Your task to perform on an android device: turn on showing notifications on the lock screen Image 0: 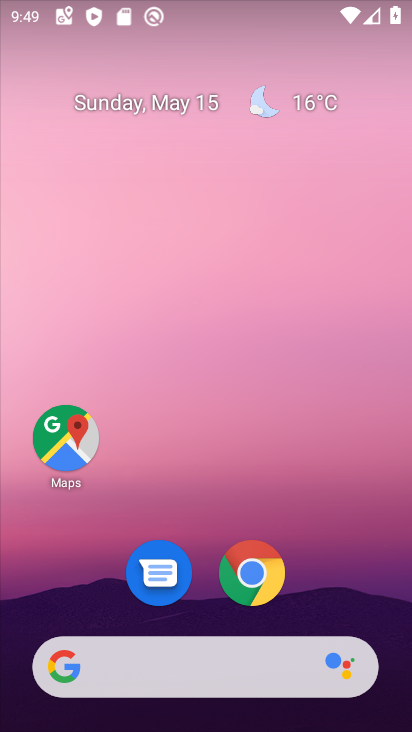
Step 0: drag from (337, 593) to (336, 48)
Your task to perform on an android device: turn on showing notifications on the lock screen Image 1: 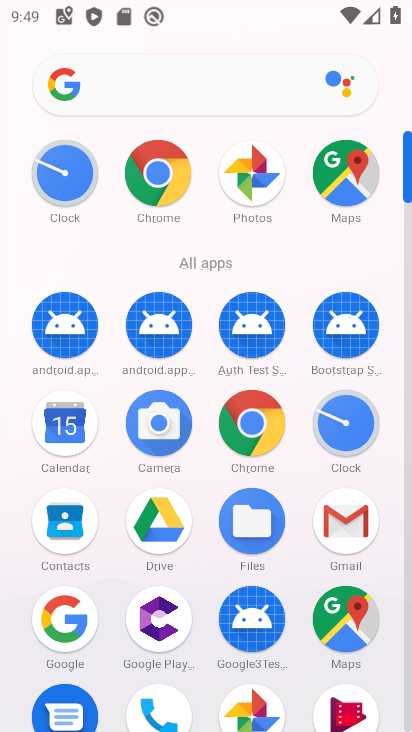
Step 1: click (411, 716)
Your task to perform on an android device: turn on showing notifications on the lock screen Image 2: 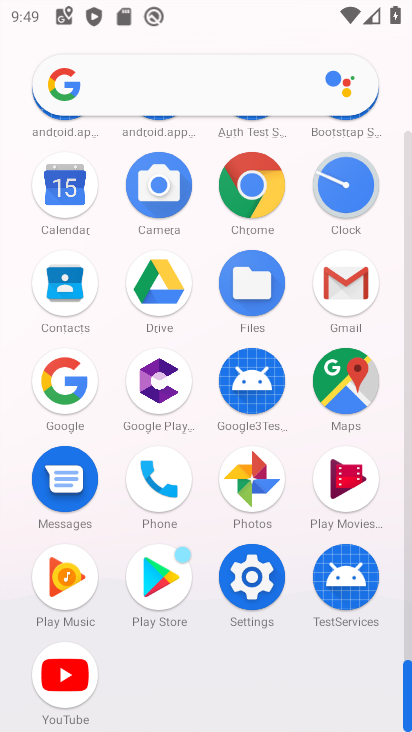
Step 2: click (236, 600)
Your task to perform on an android device: turn on showing notifications on the lock screen Image 3: 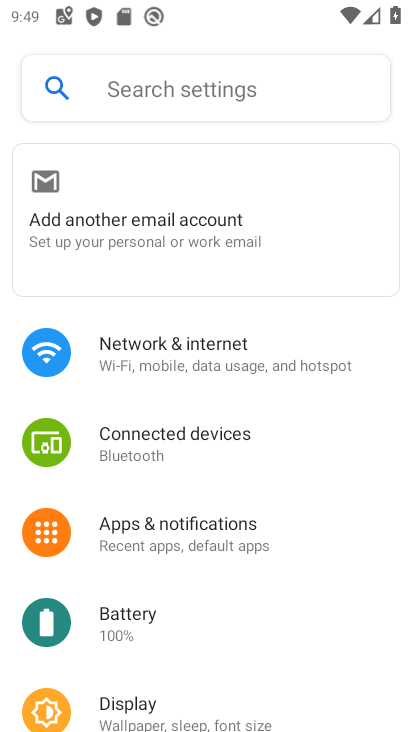
Step 3: drag from (228, 498) to (217, 241)
Your task to perform on an android device: turn on showing notifications on the lock screen Image 4: 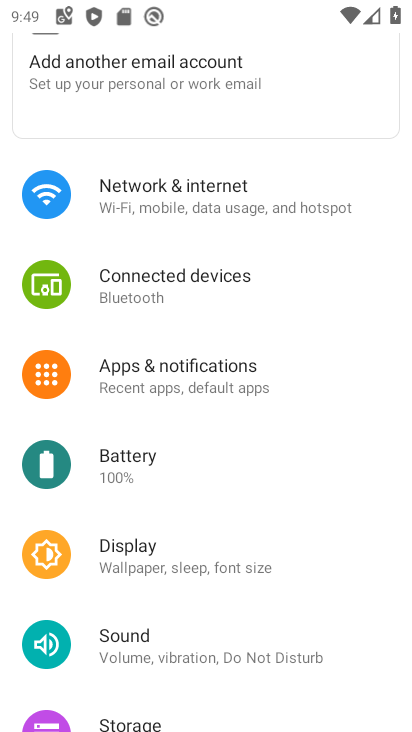
Step 4: click (137, 388)
Your task to perform on an android device: turn on showing notifications on the lock screen Image 5: 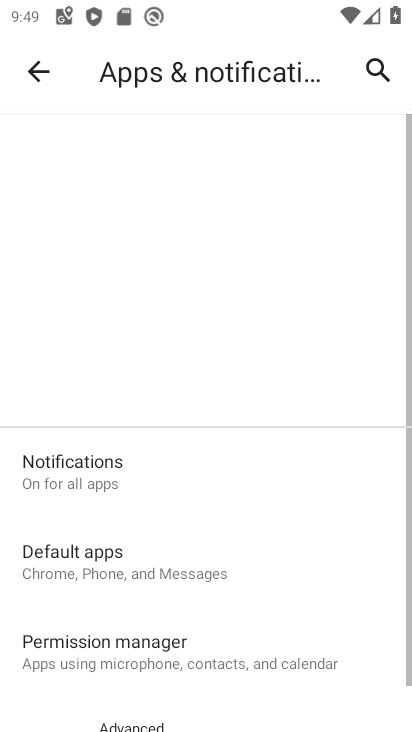
Step 5: click (113, 475)
Your task to perform on an android device: turn on showing notifications on the lock screen Image 6: 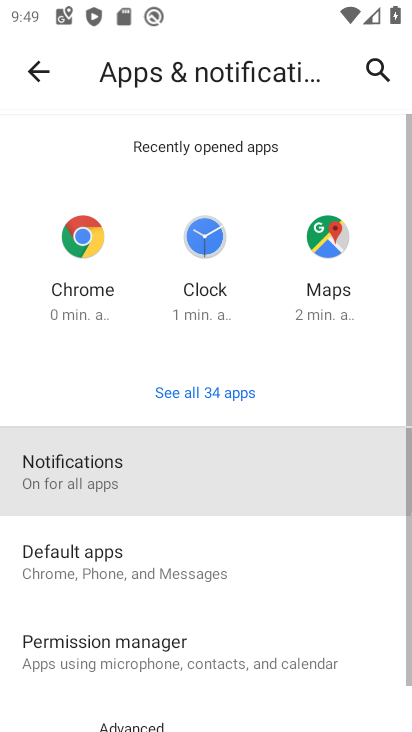
Step 6: drag from (207, 656) to (238, 317)
Your task to perform on an android device: turn on showing notifications on the lock screen Image 7: 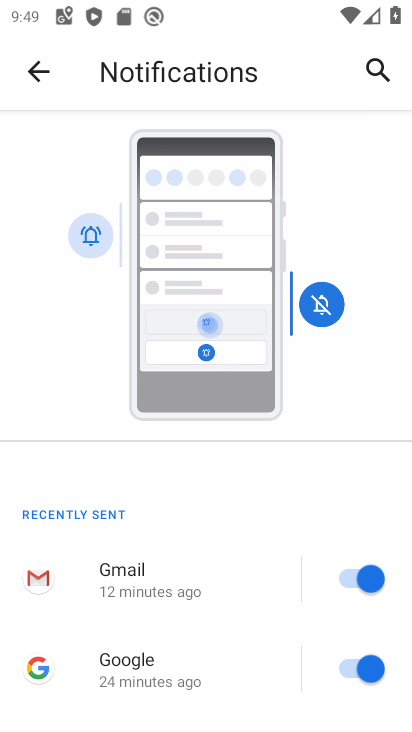
Step 7: drag from (240, 493) to (247, 246)
Your task to perform on an android device: turn on showing notifications on the lock screen Image 8: 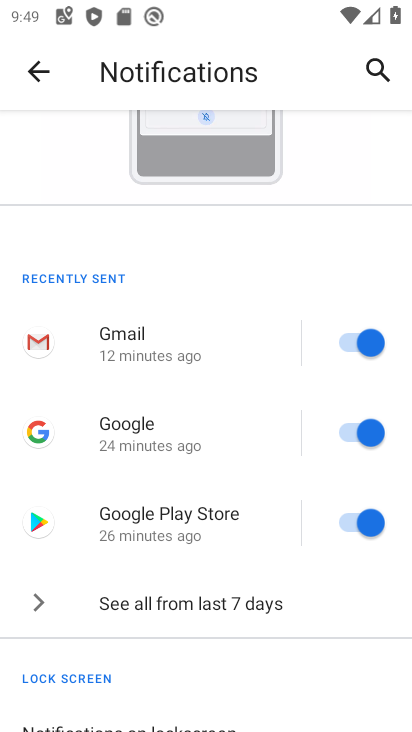
Step 8: drag from (273, 564) to (244, 202)
Your task to perform on an android device: turn on showing notifications on the lock screen Image 9: 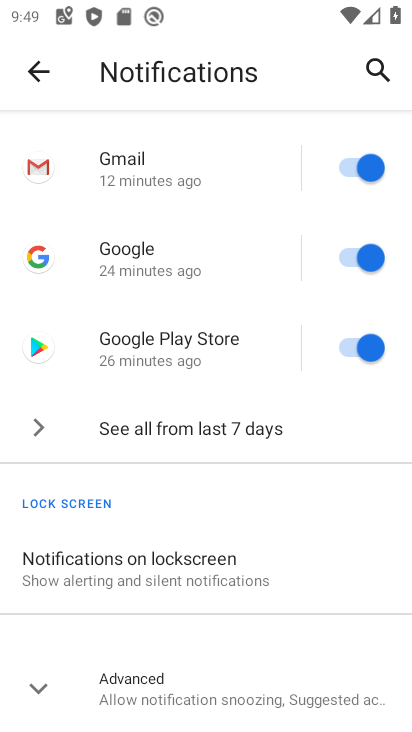
Step 9: click (139, 577)
Your task to perform on an android device: turn on showing notifications on the lock screen Image 10: 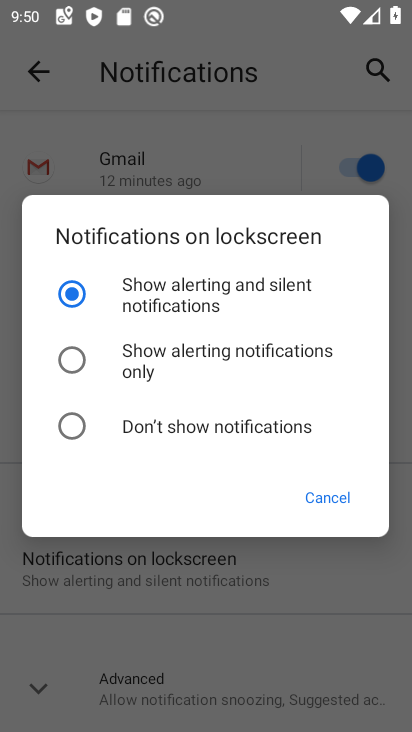
Step 10: click (184, 367)
Your task to perform on an android device: turn on showing notifications on the lock screen Image 11: 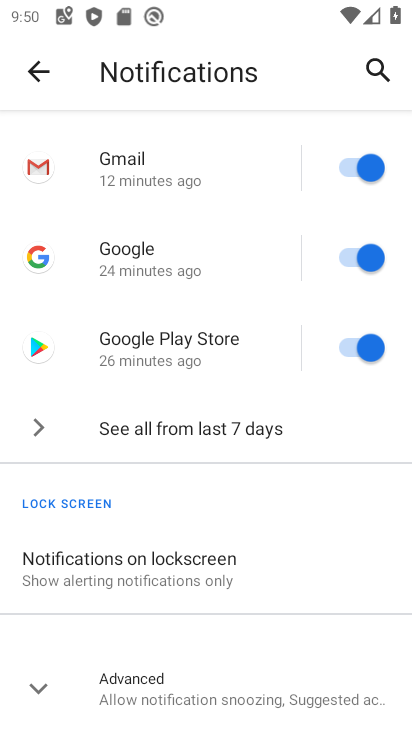
Step 11: task complete